Your task to perform on an android device: Open the Play Movies app and select the watchlist tab. Image 0: 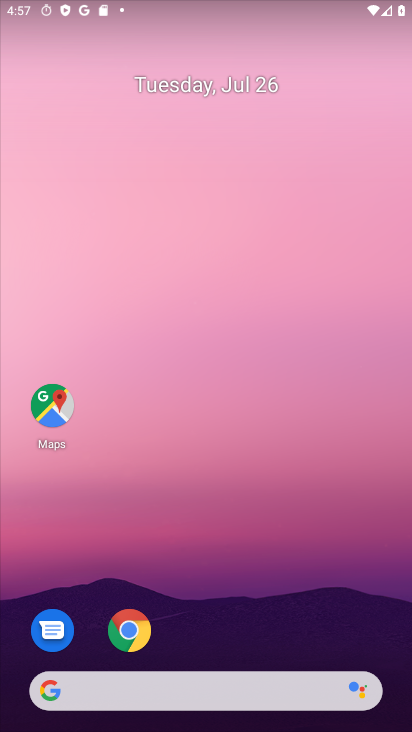
Step 0: drag from (301, 613) to (234, 74)
Your task to perform on an android device: Open the Play Movies app and select the watchlist tab. Image 1: 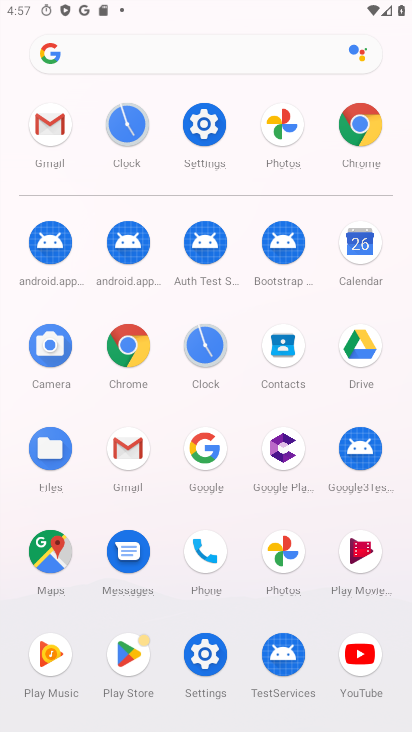
Step 1: click (360, 537)
Your task to perform on an android device: Open the Play Movies app and select the watchlist tab. Image 2: 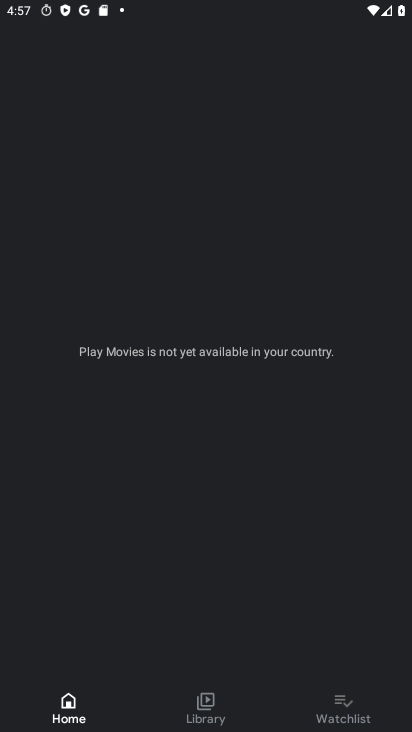
Step 2: click (335, 693)
Your task to perform on an android device: Open the Play Movies app and select the watchlist tab. Image 3: 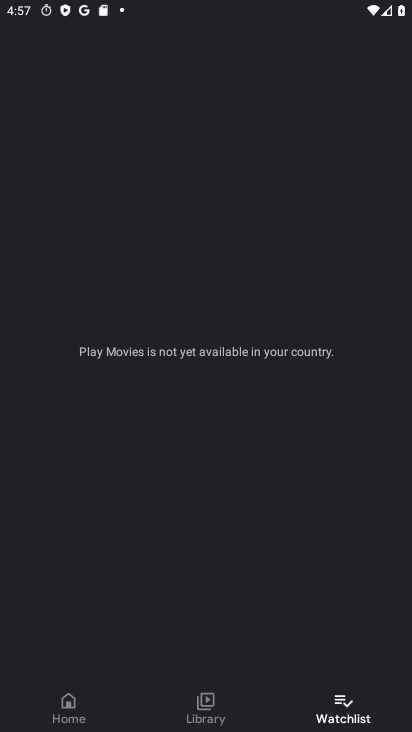
Step 3: task complete